Your task to perform on an android device: change the clock display to digital Image 0: 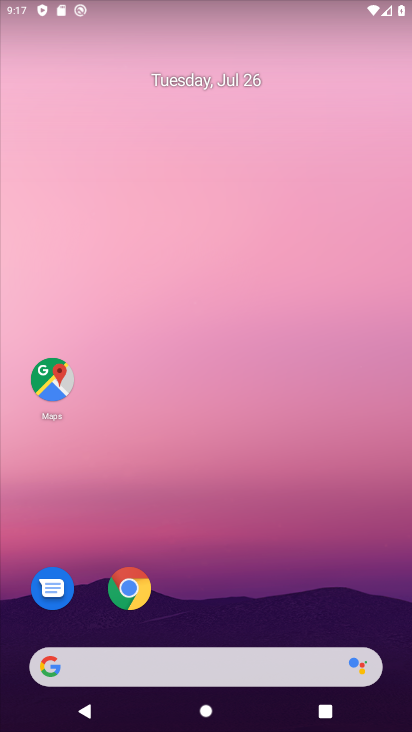
Step 0: drag from (253, 603) to (304, 26)
Your task to perform on an android device: change the clock display to digital Image 1: 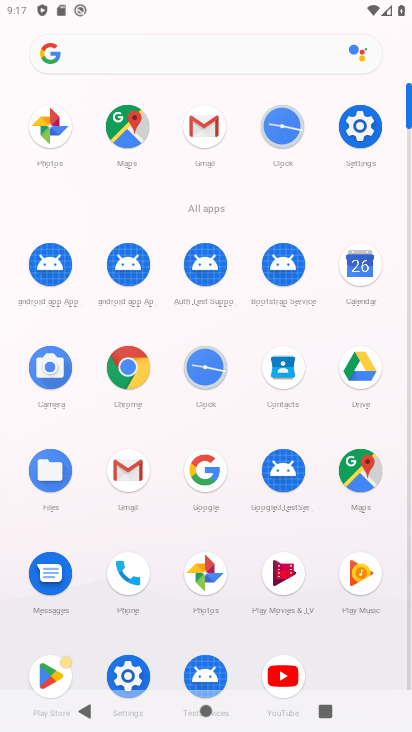
Step 1: click (210, 361)
Your task to perform on an android device: change the clock display to digital Image 2: 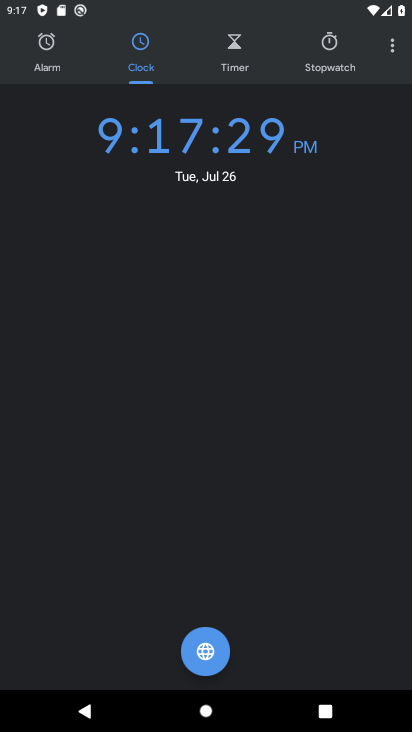
Step 2: click (395, 51)
Your task to perform on an android device: change the clock display to digital Image 3: 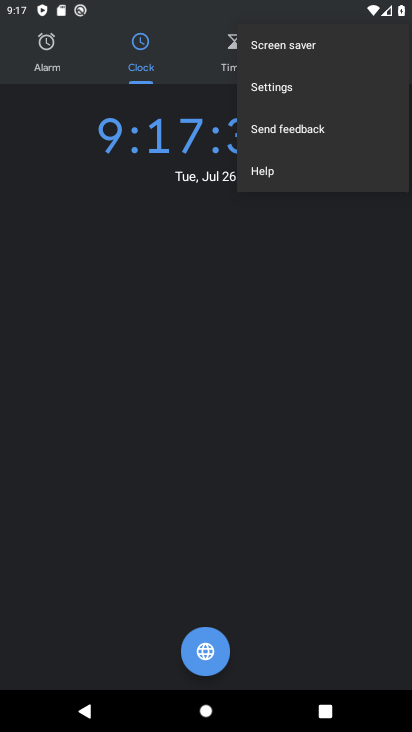
Step 3: click (298, 94)
Your task to perform on an android device: change the clock display to digital Image 4: 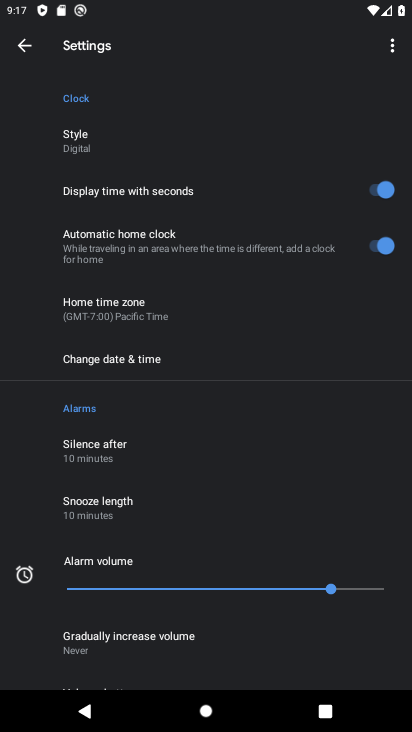
Step 4: click (110, 141)
Your task to perform on an android device: change the clock display to digital Image 5: 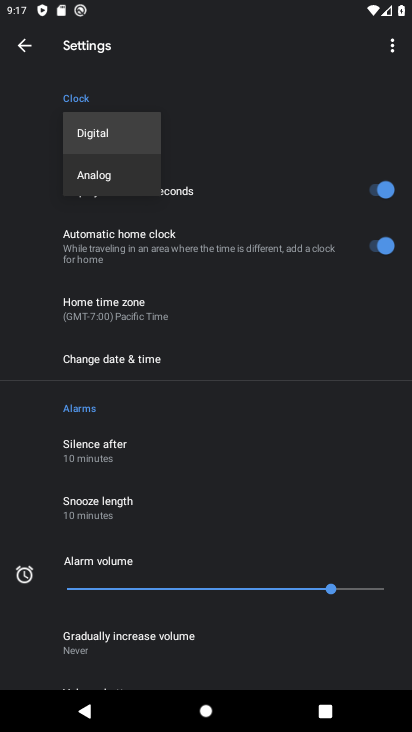
Step 5: click (120, 138)
Your task to perform on an android device: change the clock display to digital Image 6: 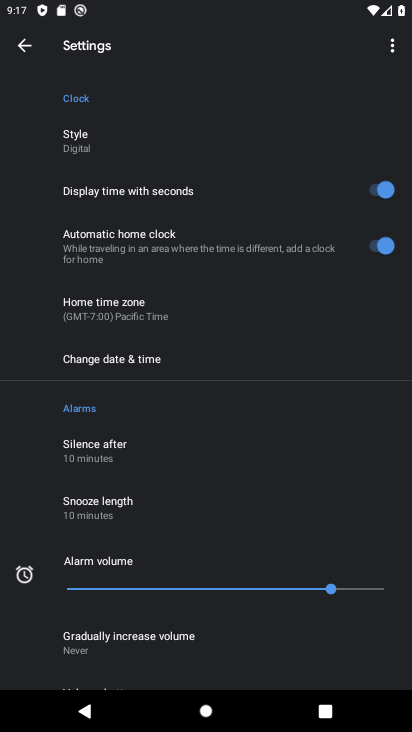
Step 6: task complete